Your task to perform on an android device: refresh tabs in the chrome app Image 0: 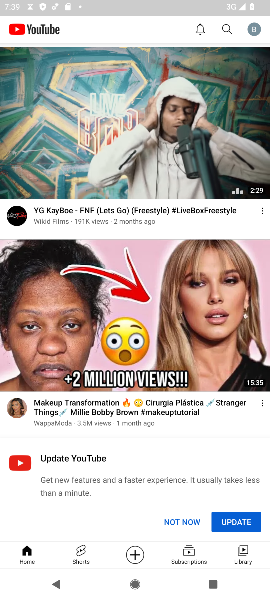
Step 0: press home button
Your task to perform on an android device: refresh tabs in the chrome app Image 1: 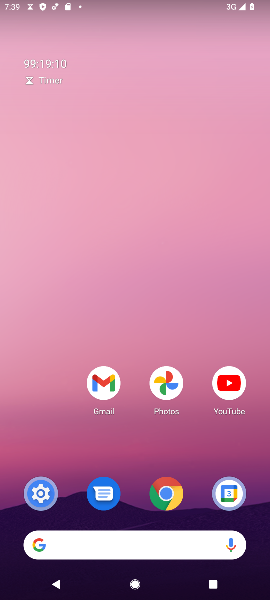
Step 1: drag from (123, 518) to (156, 159)
Your task to perform on an android device: refresh tabs in the chrome app Image 2: 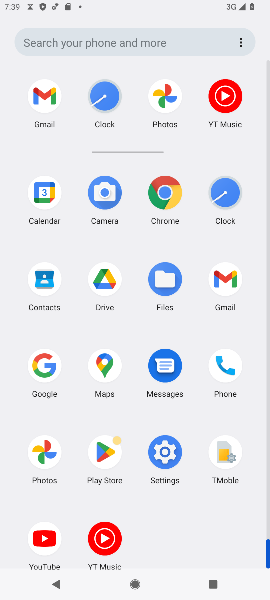
Step 2: click (153, 194)
Your task to perform on an android device: refresh tabs in the chrome app Image 3: 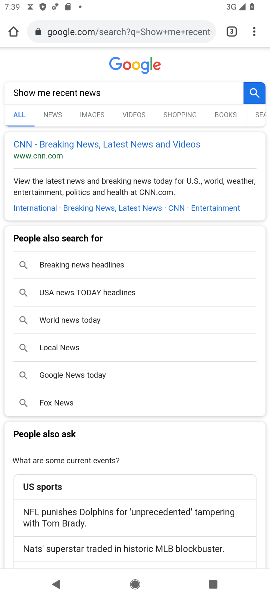
Step 3: click (252, 32)
Your task to perform on an android device: refresh tabs in the chrome app Image 4: 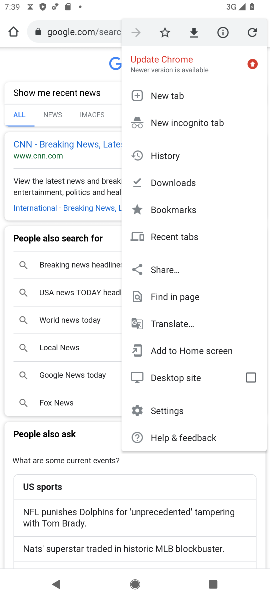
Step 4: click (250, 28)
Your task to perform on an android device: refresh tabs in the chrome app Image 5: 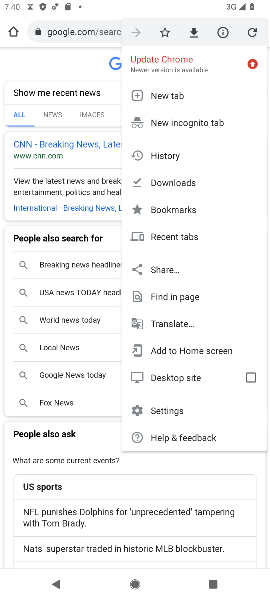
Step 5: task complete